Your task to perform on an android device: Open Google Maps Image 0: 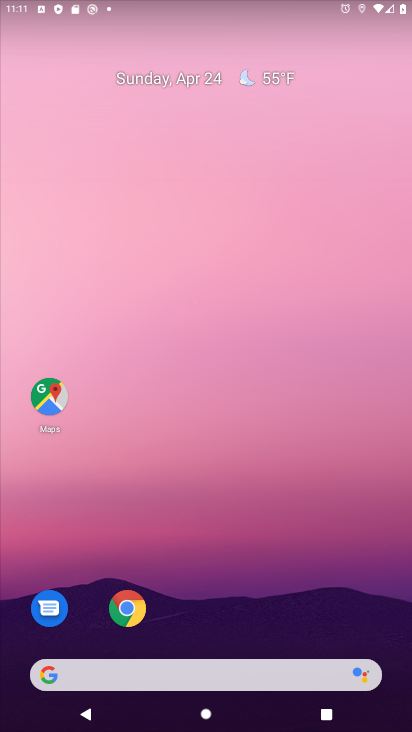
Step 0: click (48, 396)
Your task to perform on an android device: Open Google Maps Image 1: 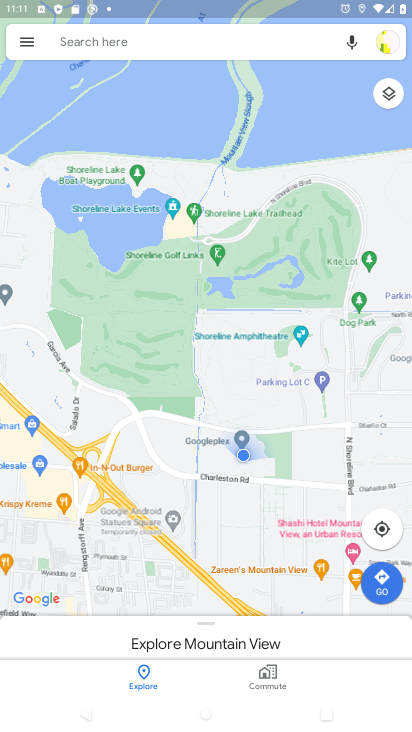
Step 1: task complete